Your task to perform on an android device: open app "Booking.com: Hotels and more" (install if not already installed) Image 0: 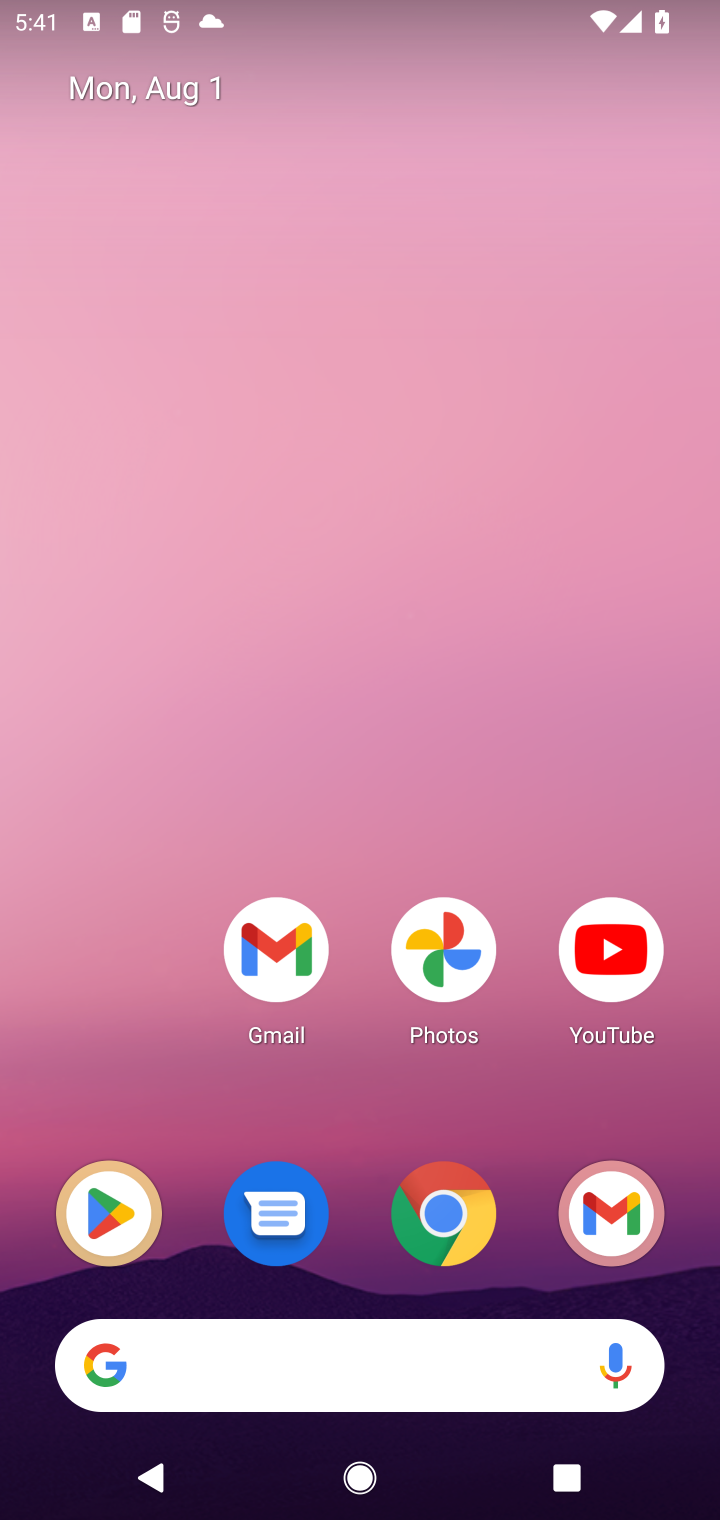
Step 0: drag from (350, 930) to (293, 133)
Your task to perform on an android device: open app "Booking.com: Hotels and more" (install if not already installed) Image 1: 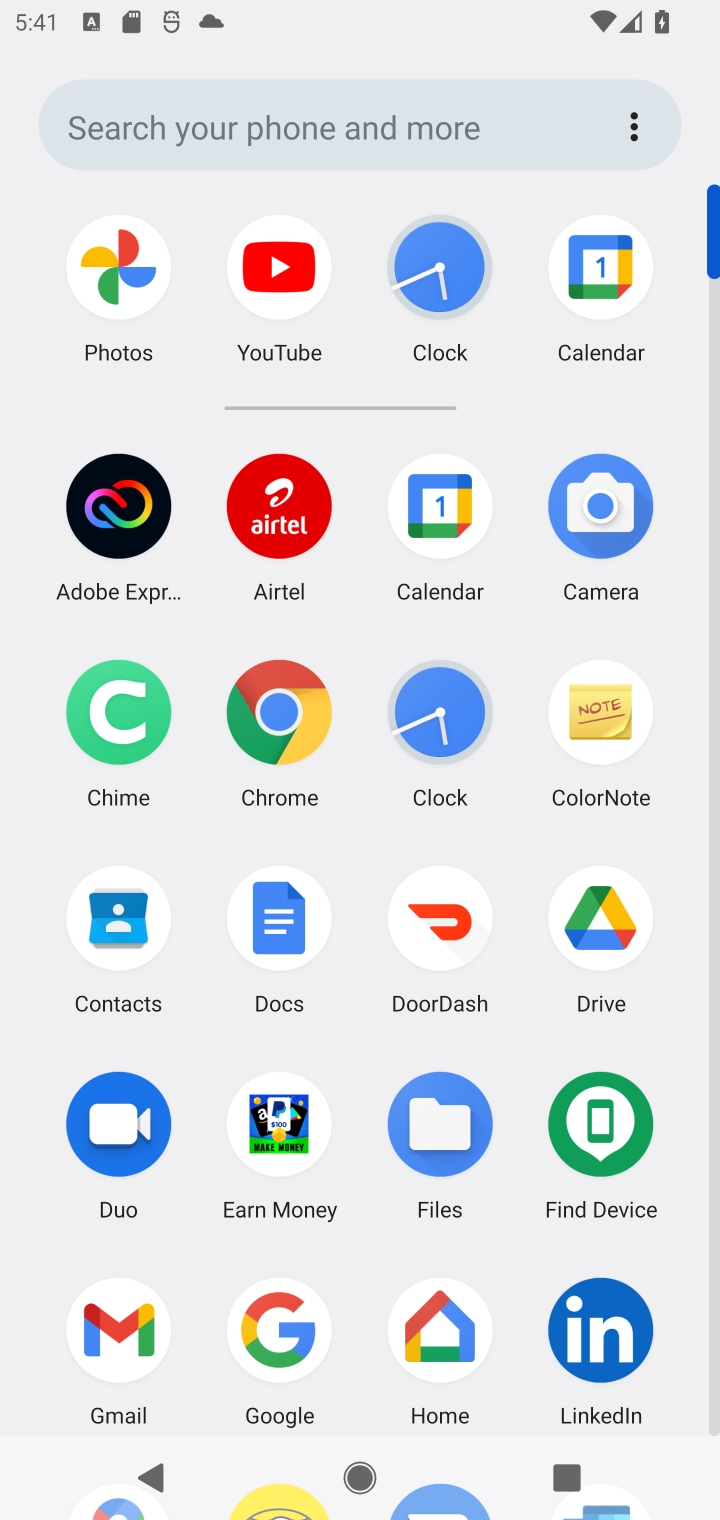
Step 1: drag from (359, 1150) to (400, 195)
Your task to perform on an android device: open app "Booking.com: Hotels and more" (install if not already installed) Image 2: 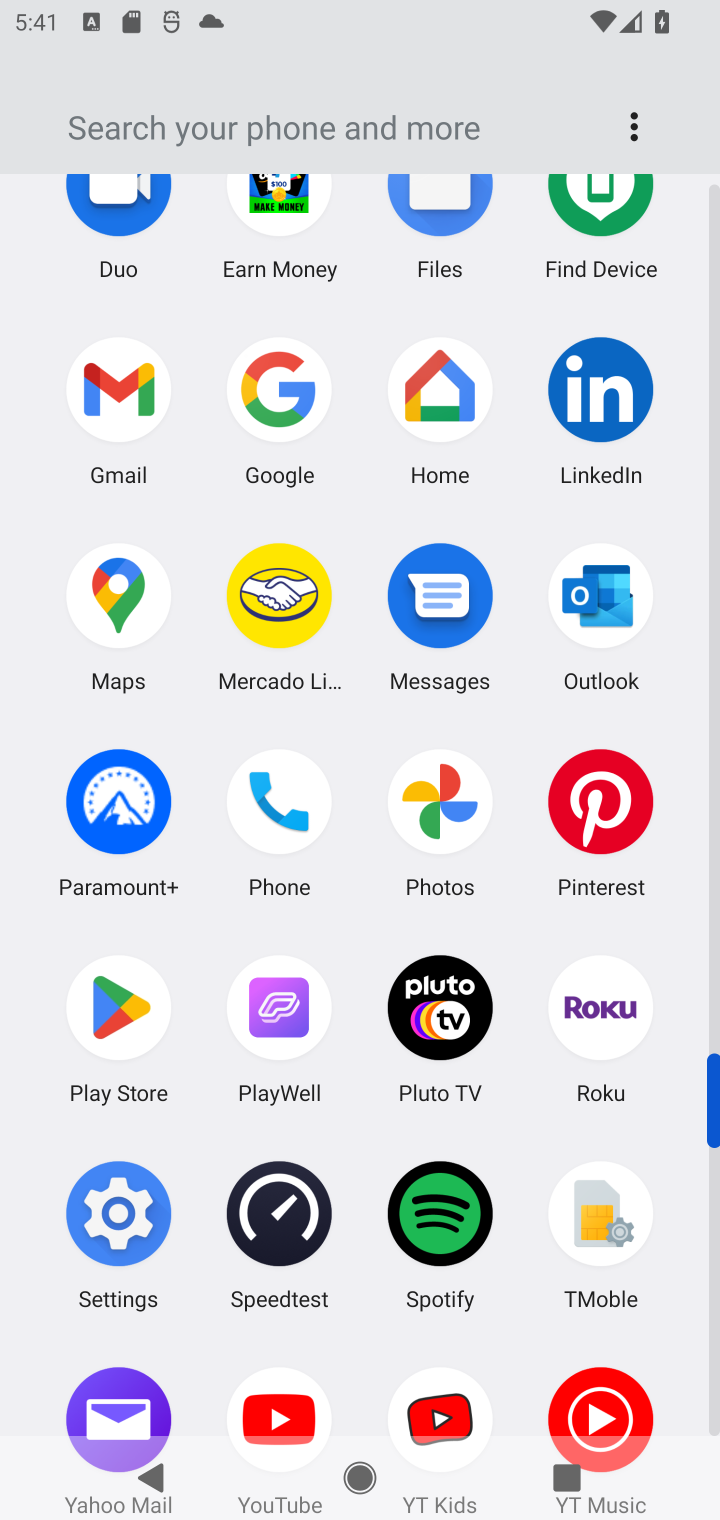
Step 2: click (103, 1007)
Your task to perform on an android device: open app "Booking.com: Hotels and more" (install if not already installed) Image 3: 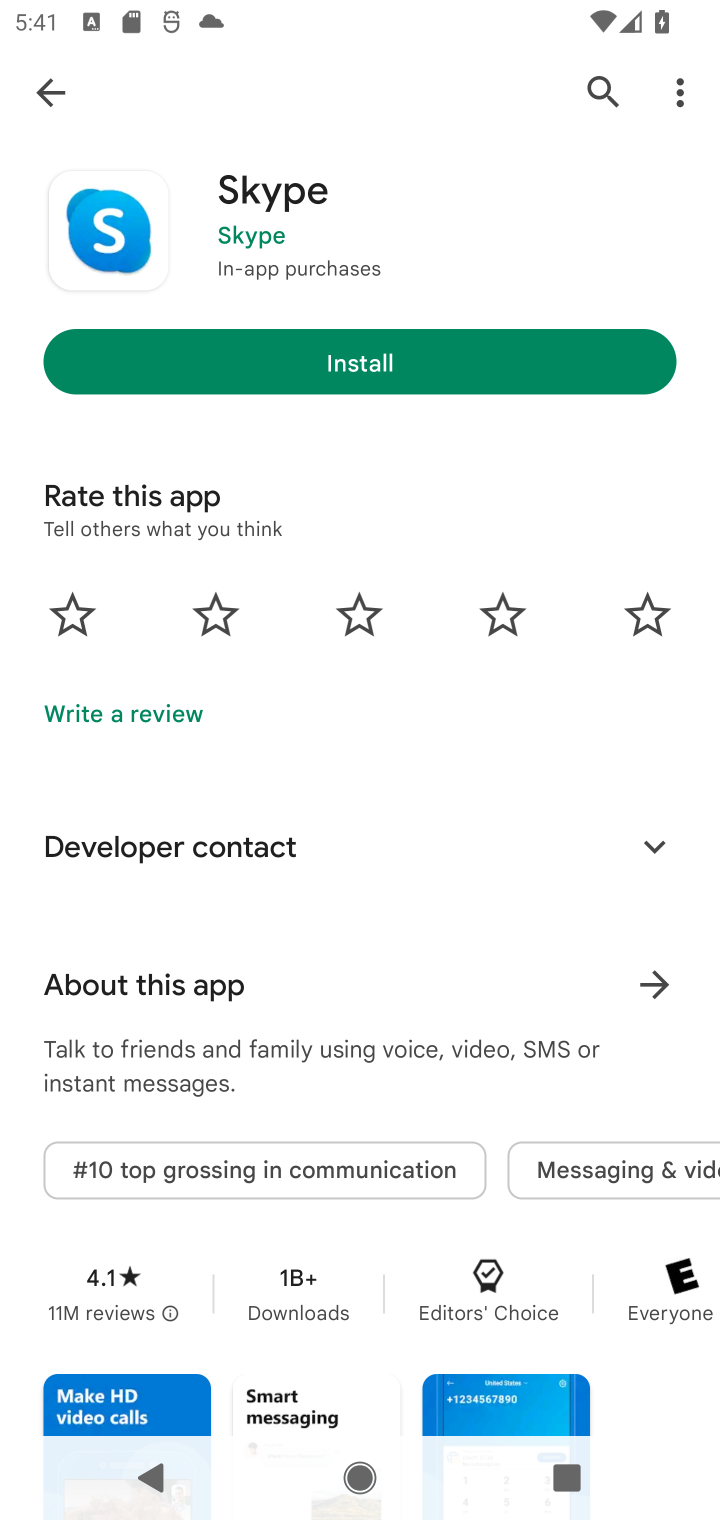
Step 3: click (597, 100)
Your task to perform on an android device: open app "Booking.com: Hotels and more" (install if not already installed) Image 4: 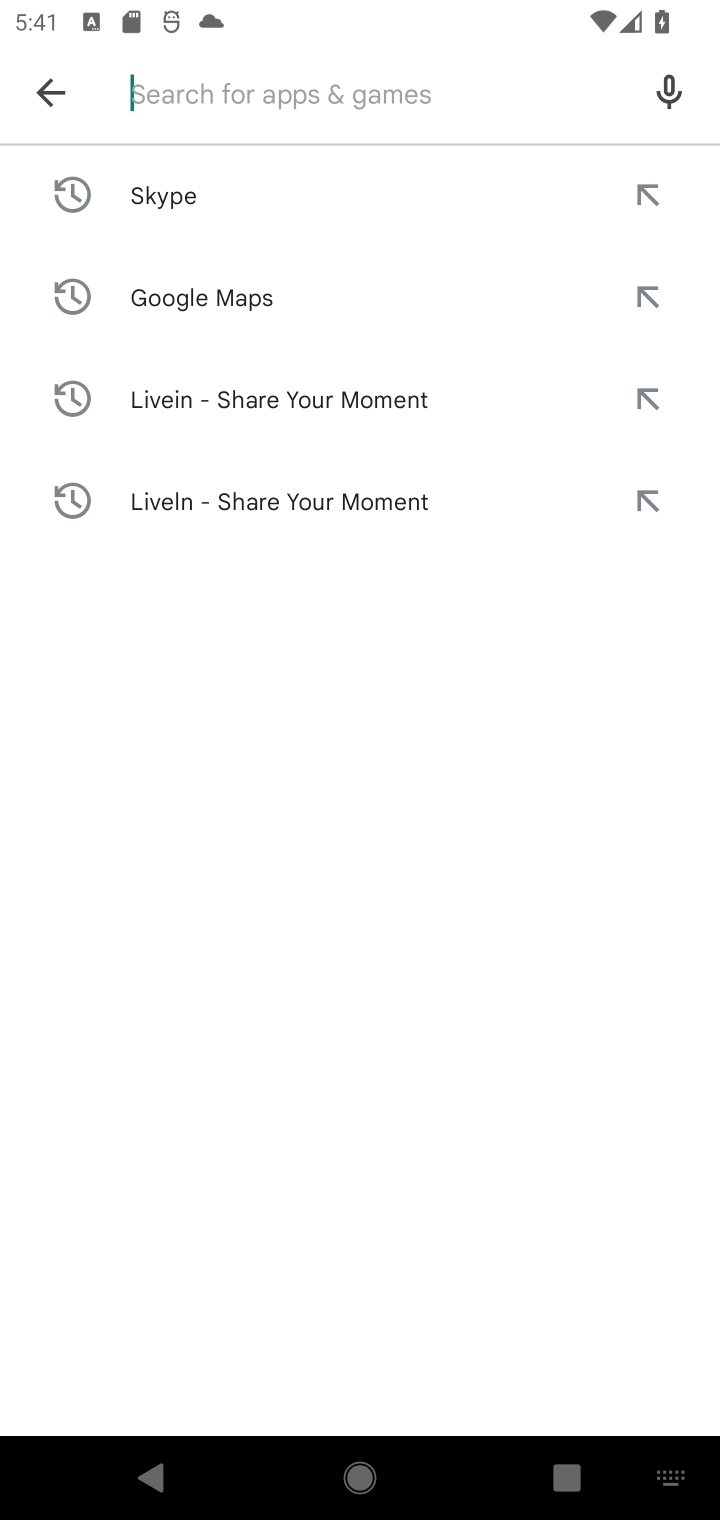
Step 4: type "Booking.com: Hotels and more"
Your task to perform on an android device: open app "Booking.com: Hotels and more" (install if not already installed) Image 5: 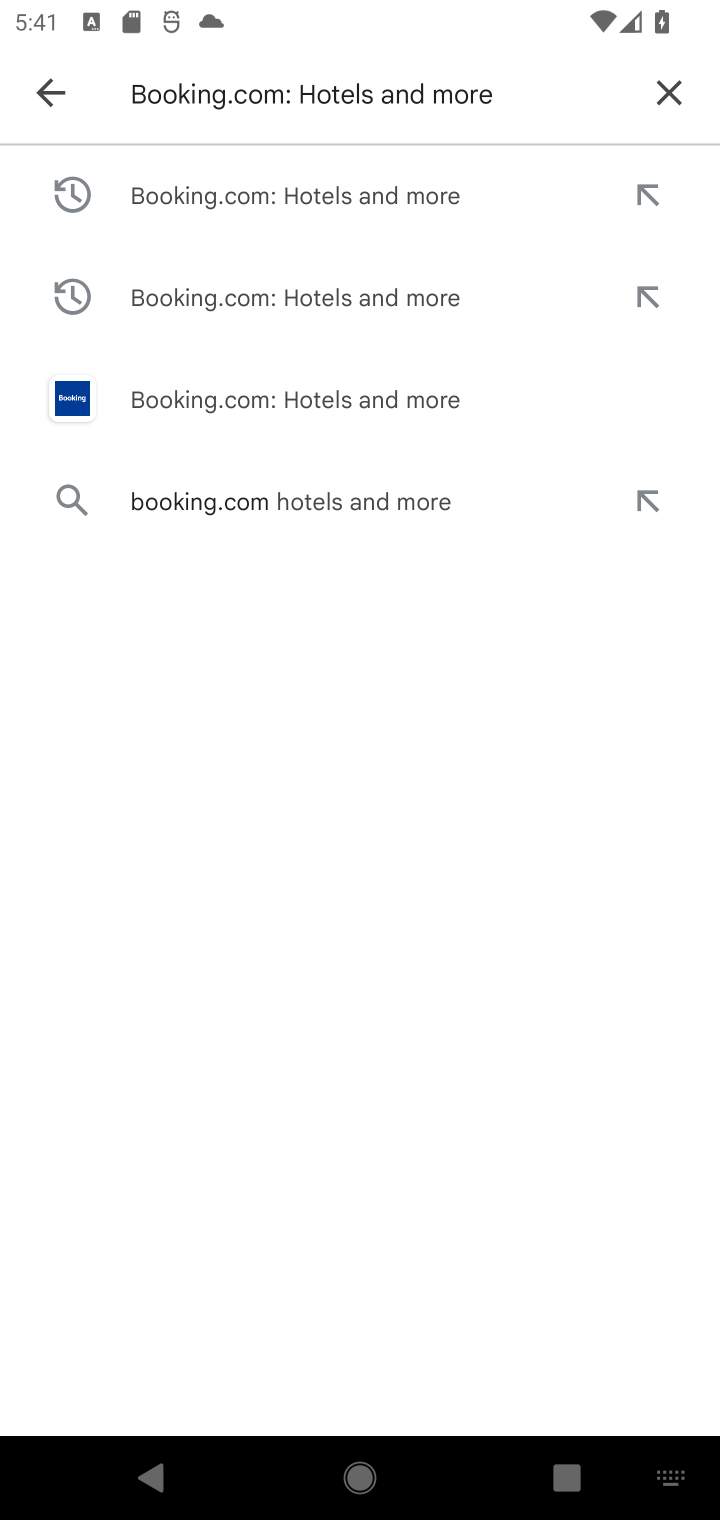
Step 5: press enter
Your task to perform on an android device: open app "Booking.com: Hotels and more" (install if not already installed) Image 6: 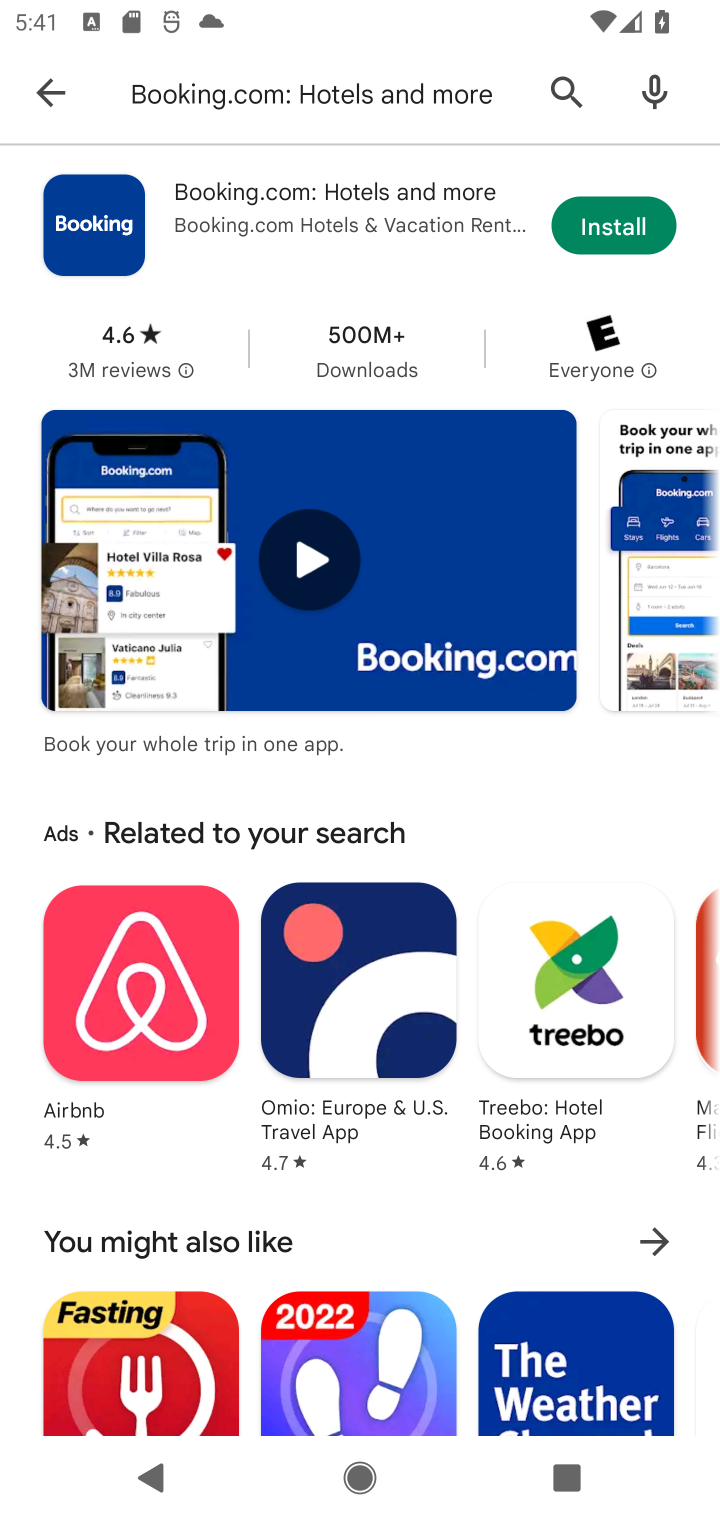
Step 6: click (410, 231)
Your task to perform on an android device: open app "Booking.com: Hotels and more" (install if not already installed) Image 7: 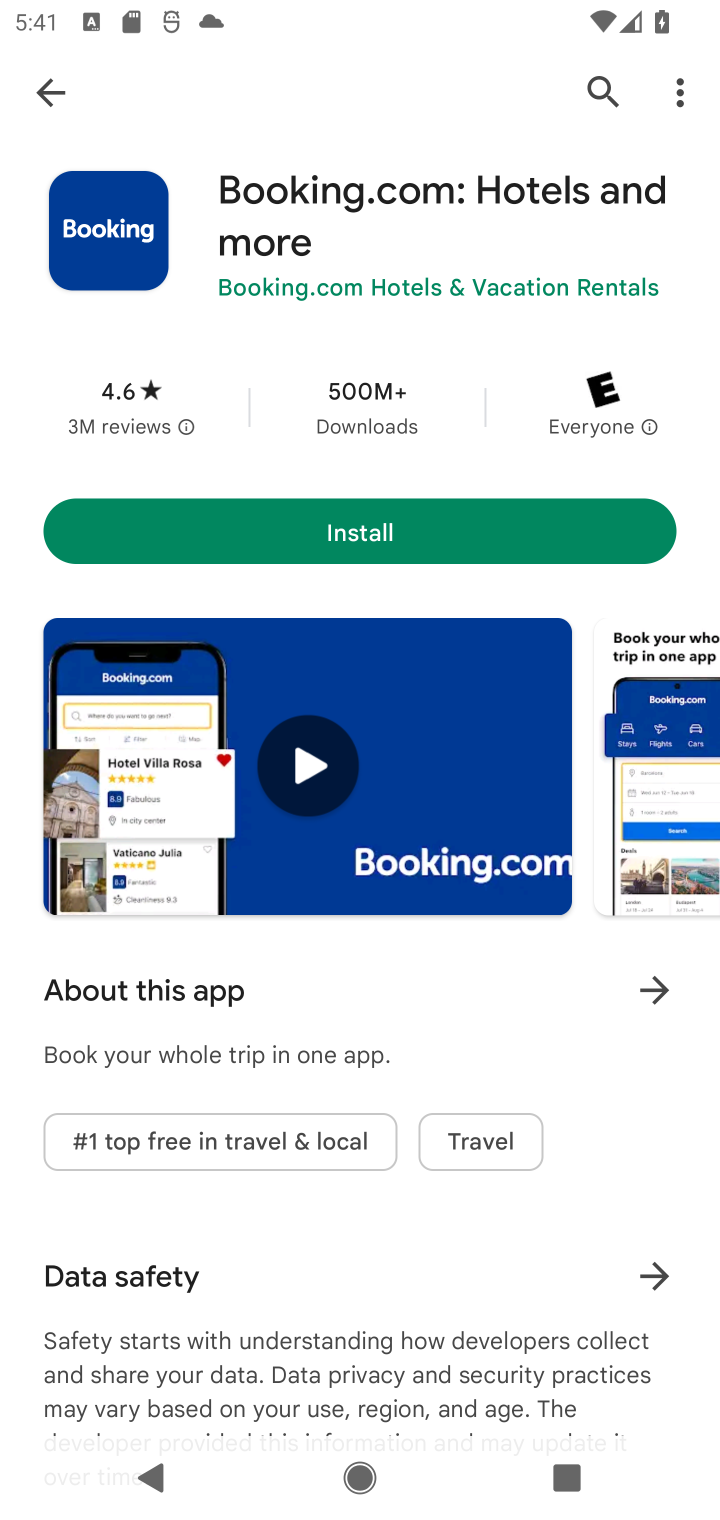
Step 7: click (466, 534)
Your task to perform on an android device: open app "Booking.com: Hotels and more" (install if not already installed) Image 8: 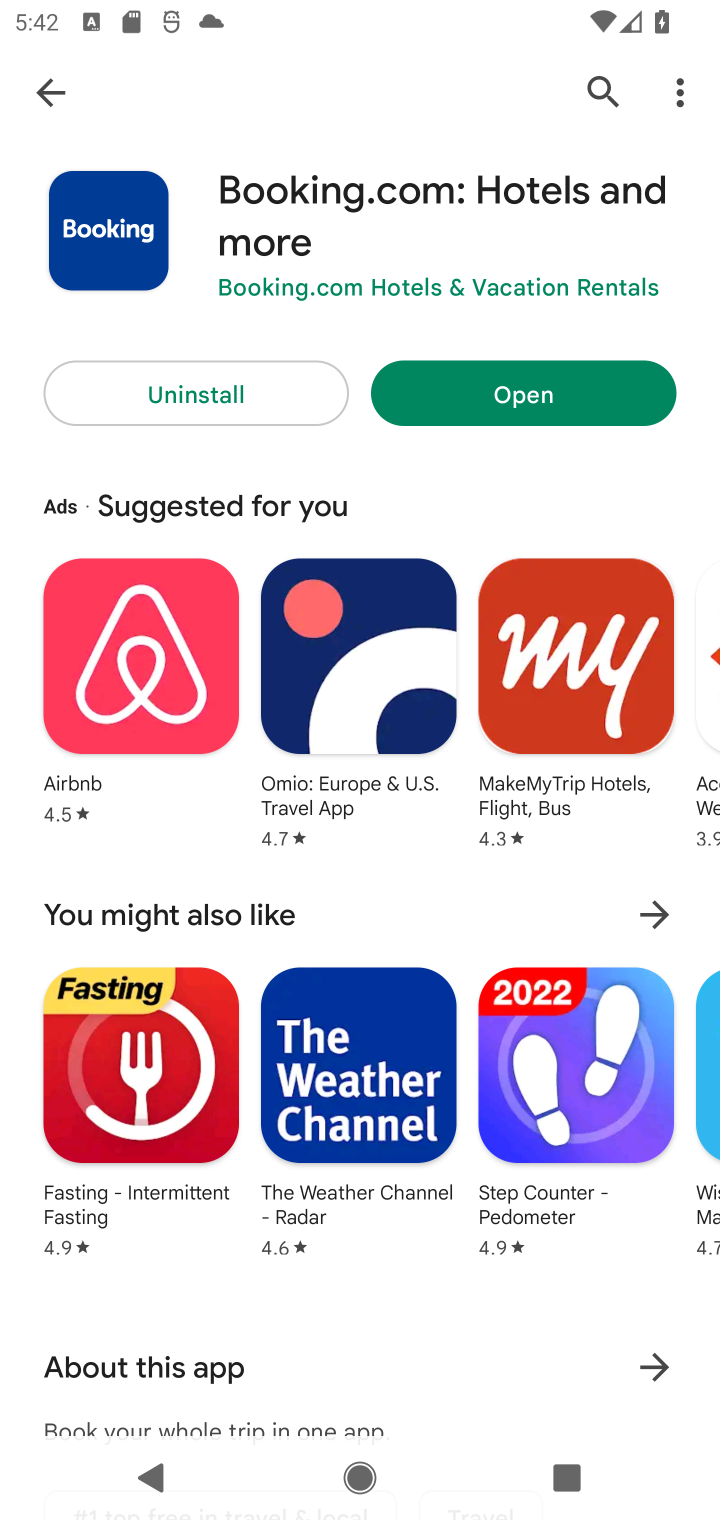
Step 8: click (539, 403)
Your task to perform on an android device: open app "Booking.com: Hotels and more" (install if not already installed) Image 9: 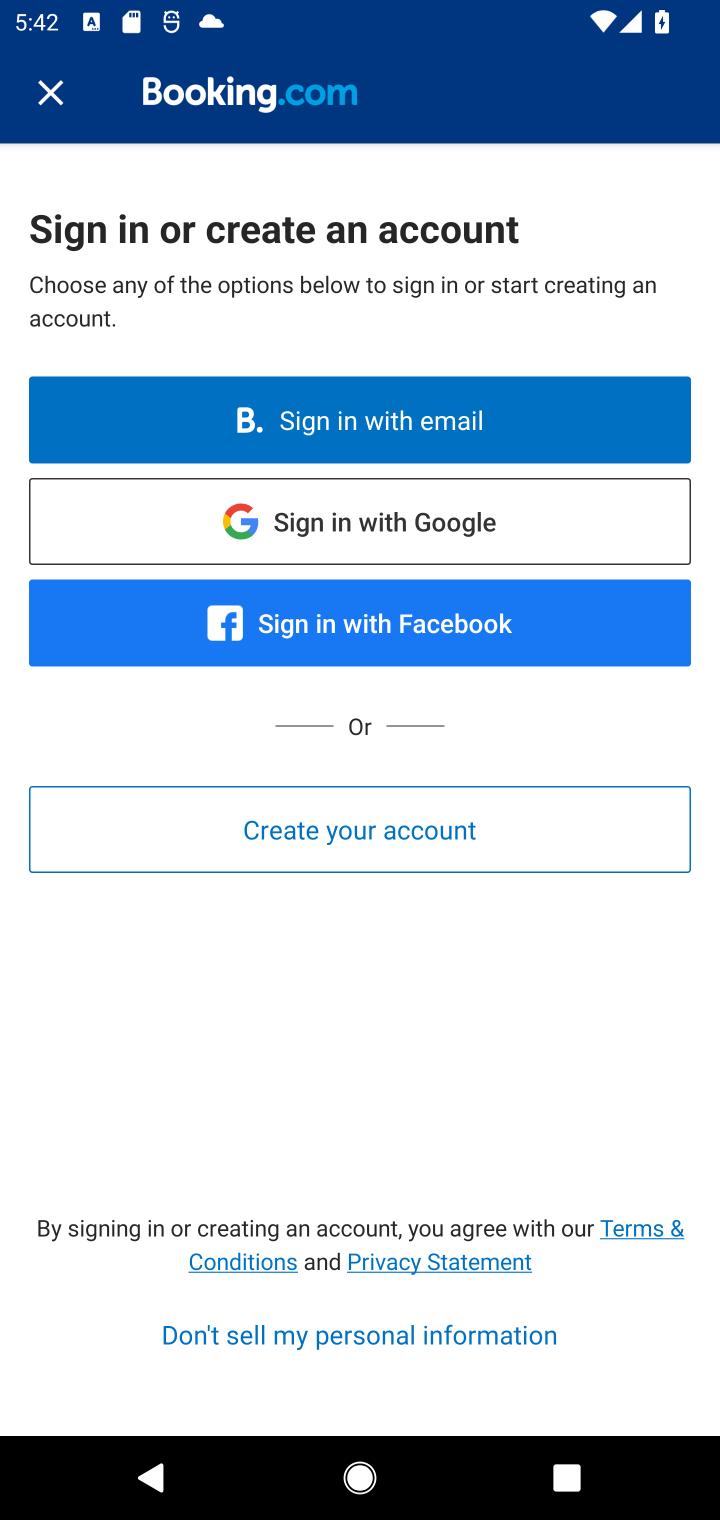
Step 9: task complete